Your task to perform on an android device: change your default location settings in chrome Image 0: 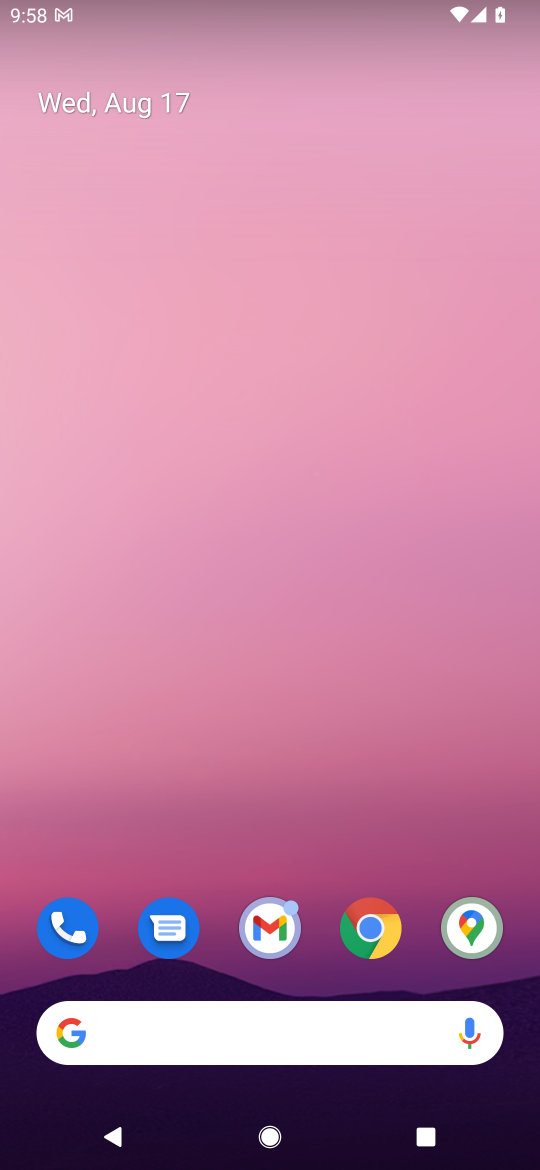
Step 0: click (372, 931)
Your task to perform on an android device: change your default location settings in chrome Image 1: 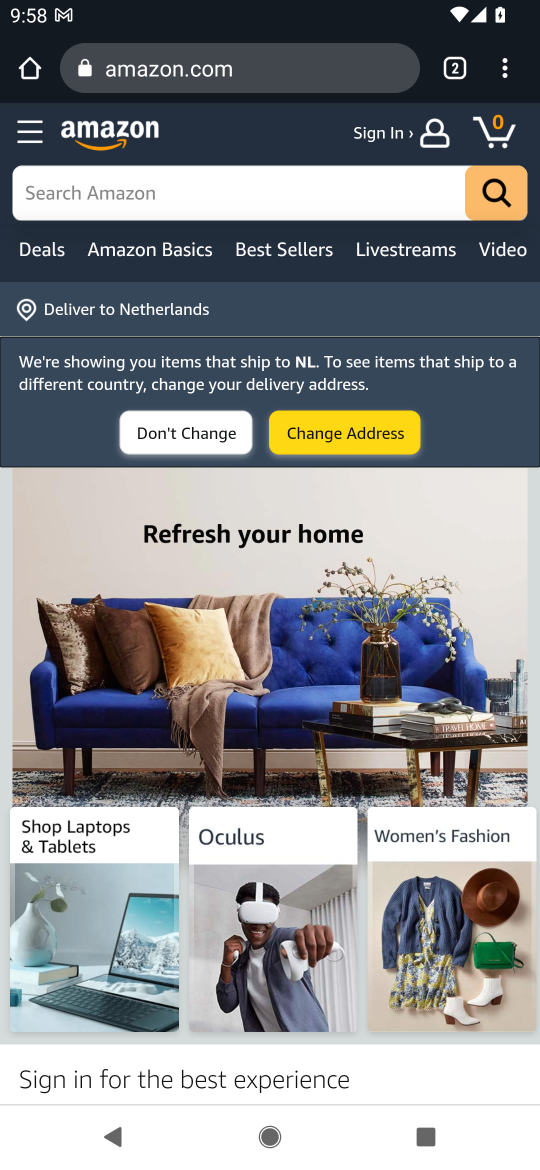
Step 1: click (512, 68)
Your task to perform on an android device: change your default location settings in chrome Image 2: 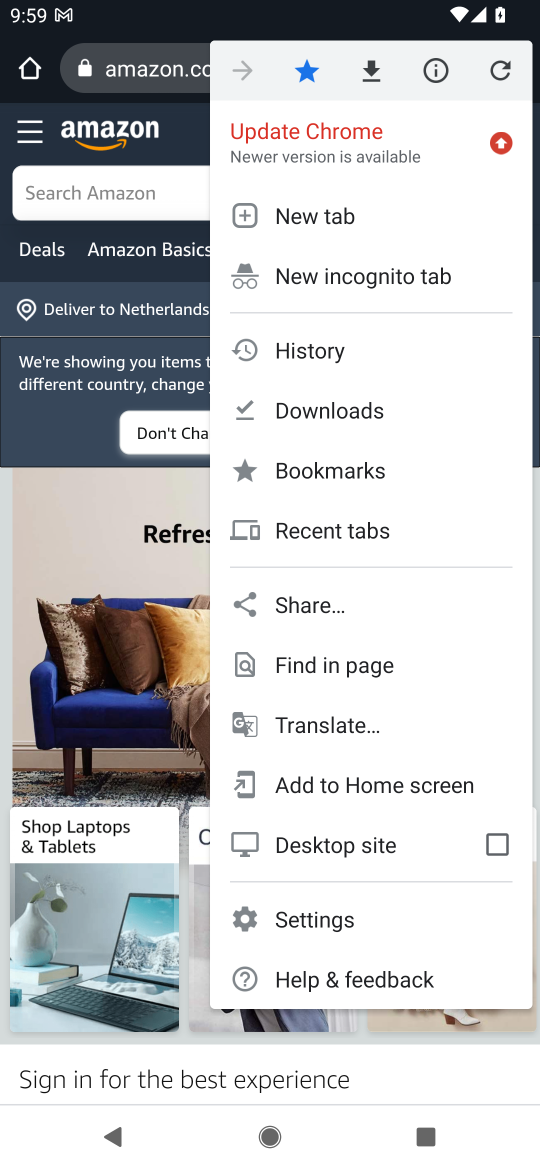
Step 2: click (264, 925)
Your task to perform on an android device: change your default location settings in chrome Image 3: 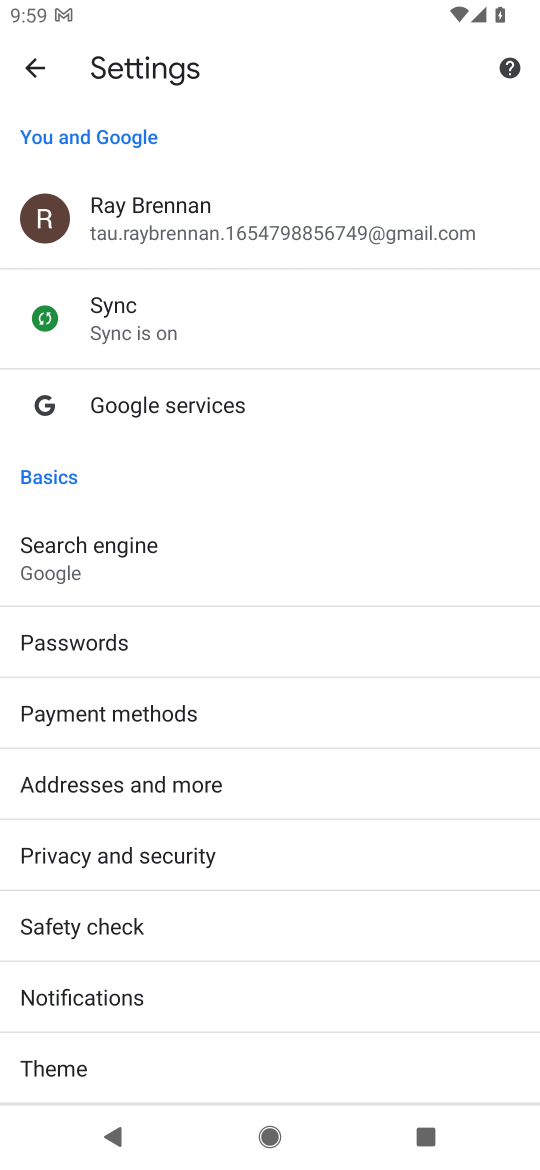
Step 3: drag from (242, 944) to (211, 471)
Your task to perform on an android device: change your default location settings in chrome Image 4: 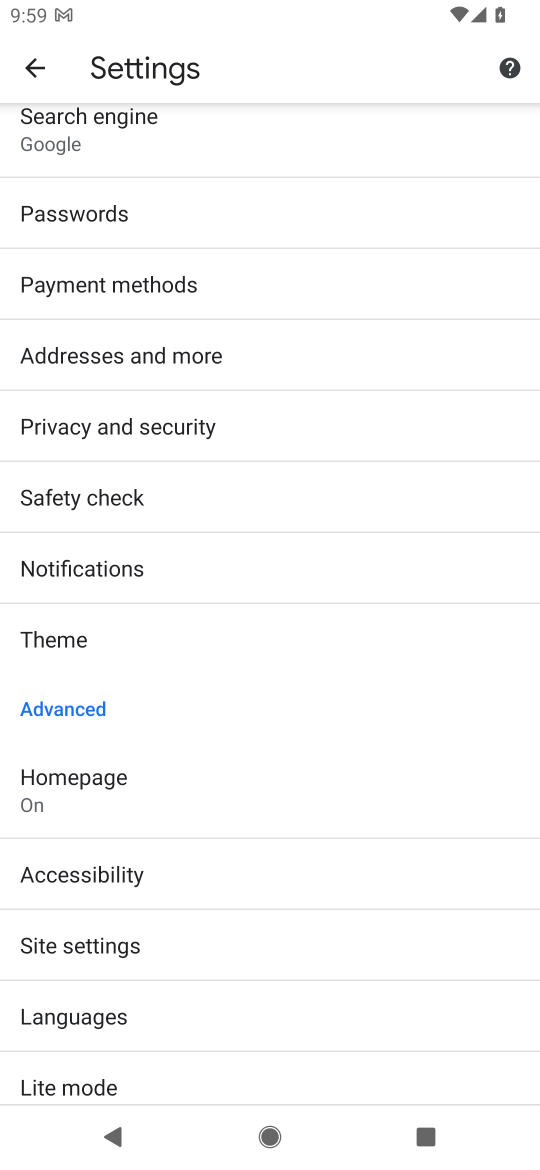
Step 4: click (137, 947)
Your task to perform on an android device: change your default location settings in chrome Image 5: 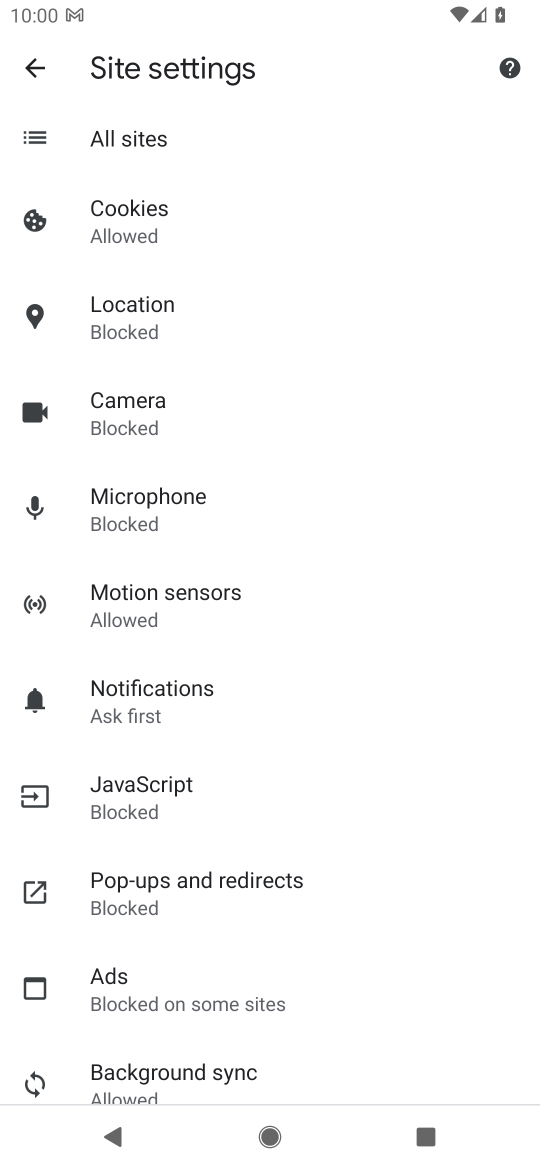
Step 5: click (169, 321)
Your task to perform on an android device: change your default location settings in chrome Image 6: 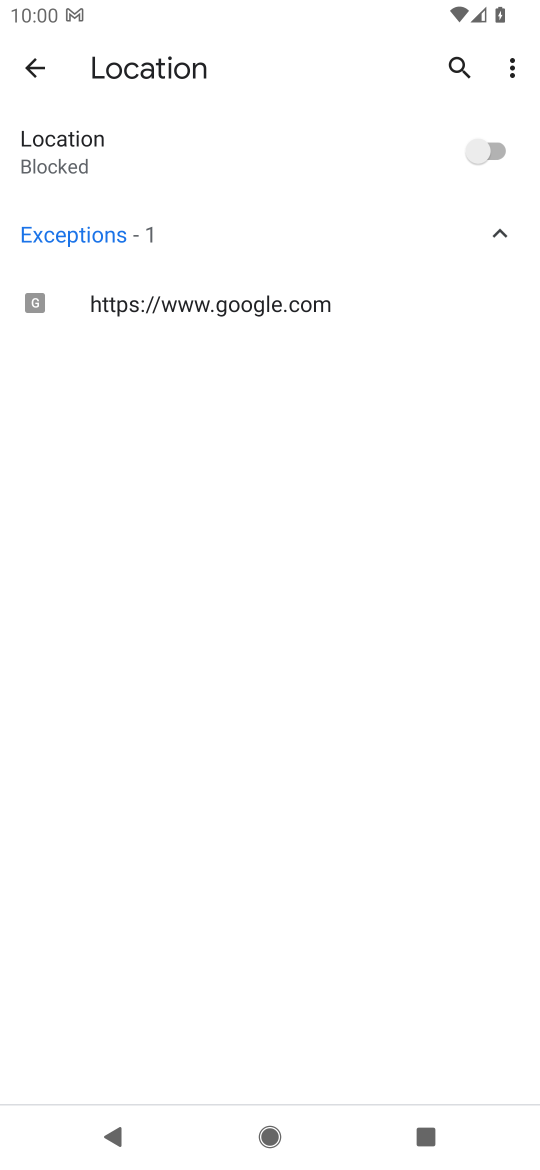
Step 6: click (492, 150)
Your task to perform on an android device: change your default location settings in chrome Image 7: 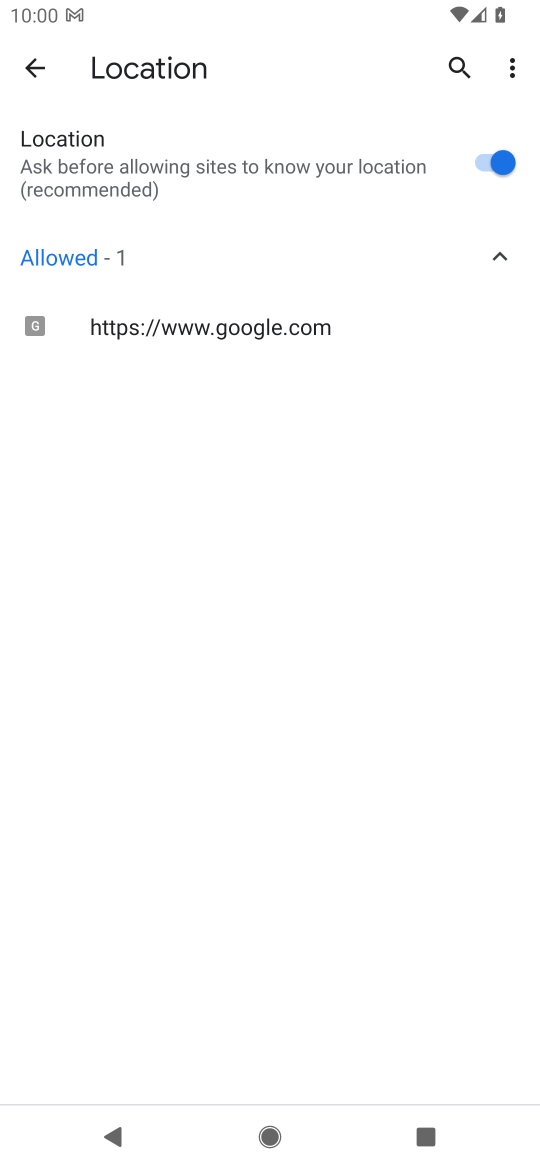
Step 7: task complete